Your task to perform on an android device: Search for the best rated kitchen reno kits on Lowes.com Image 0: 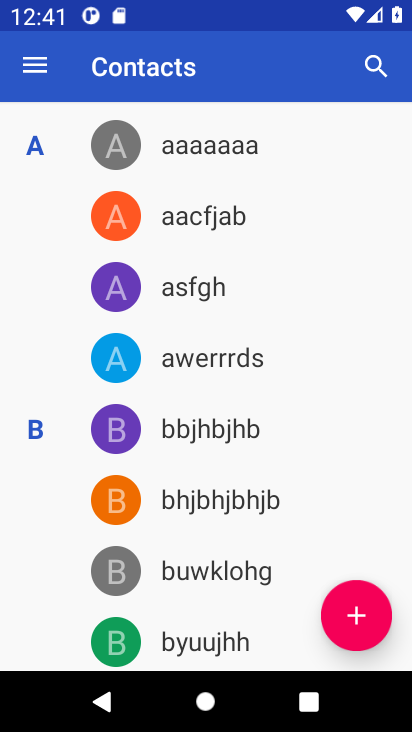
Step 0: press home button
Your task to perform on an android device: Search for the best rated kitchen reno kits on Lowes.com Image 1: 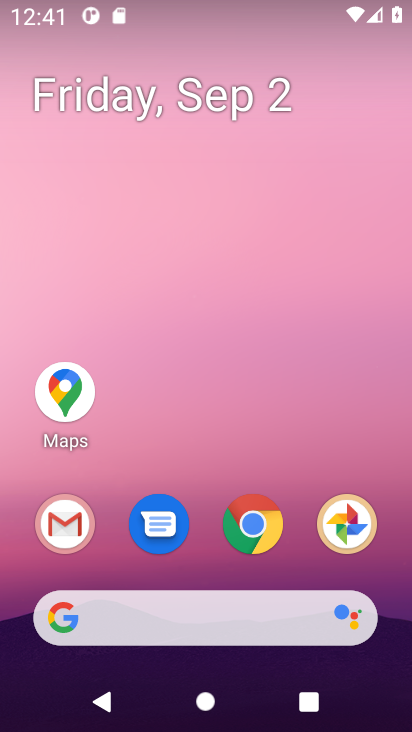
Step 1: click (293, 616)
Your task to perform on an android device: Search for the best rated kitchen reno kits on Lowes.com Image 2: 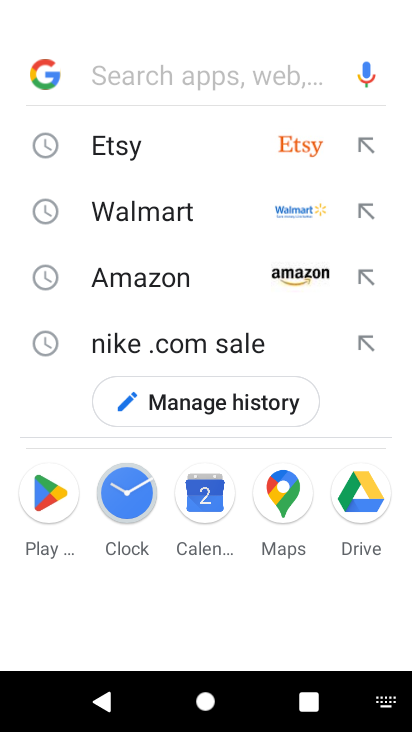
Step 2: press enter
Your task to perform on an android device: Search for the best rated kitchen reno kits on Lowes.com Image 3: 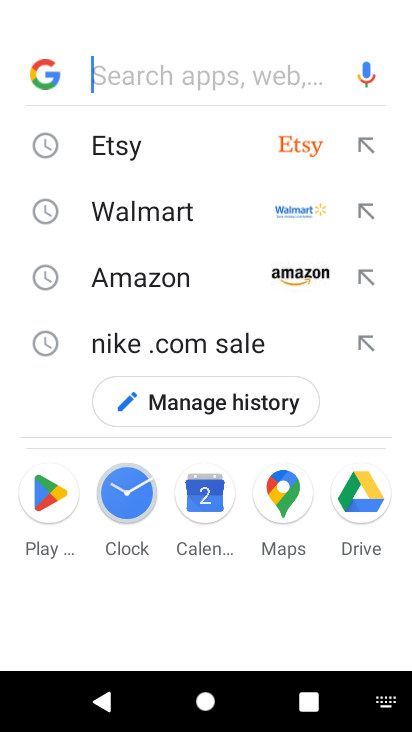
Step 3: type "lowes.com"
Your task to perform on an android device: Search for the best rated kitchen reno kits on Lowes.com Image 4: 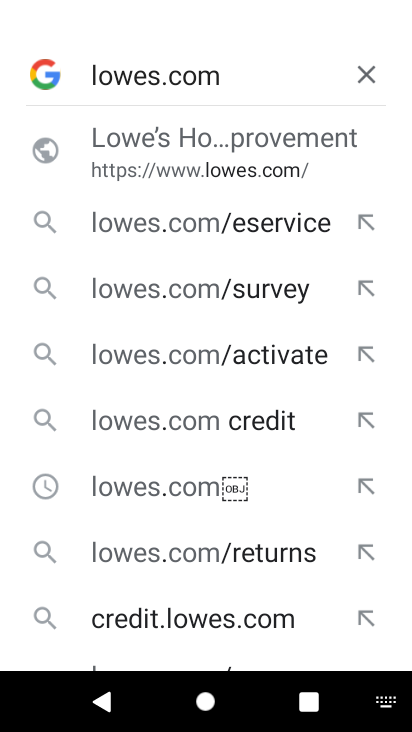
Step 4: click (244, 149)
Your task to perform on an android device: Search for the best rated kitchen reno kits on Lowes.com Image 5: 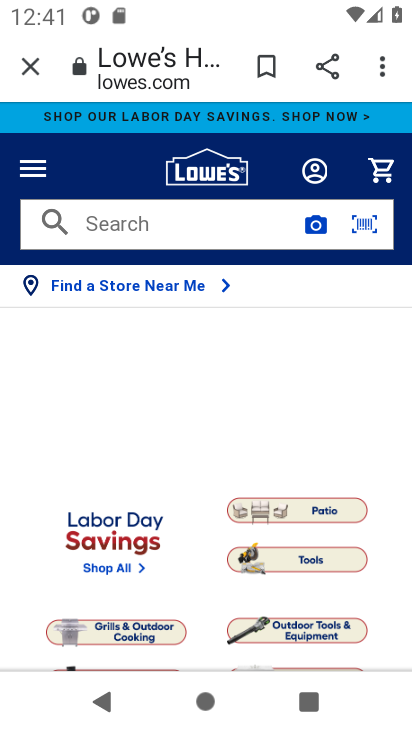
Step 5: click (126, 222)
Your task to perform on an android device: Search for the best rated kitchen reno kits on Lowes.com Image 6: 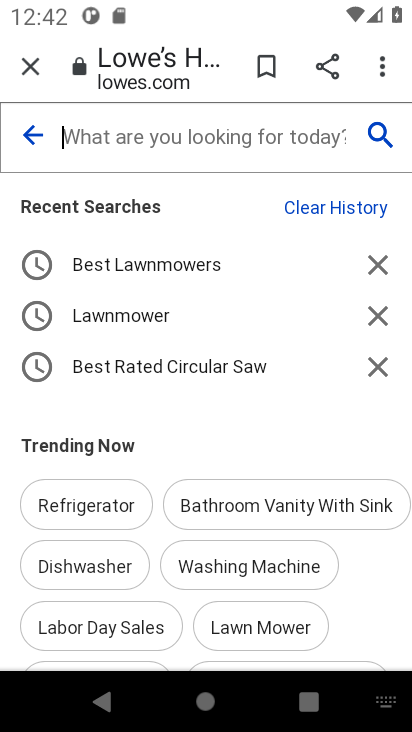
Step 6: press enter
Your task to perform on an android device: Search for the best rated kitchen reno kits on Lowes.com Image 7: 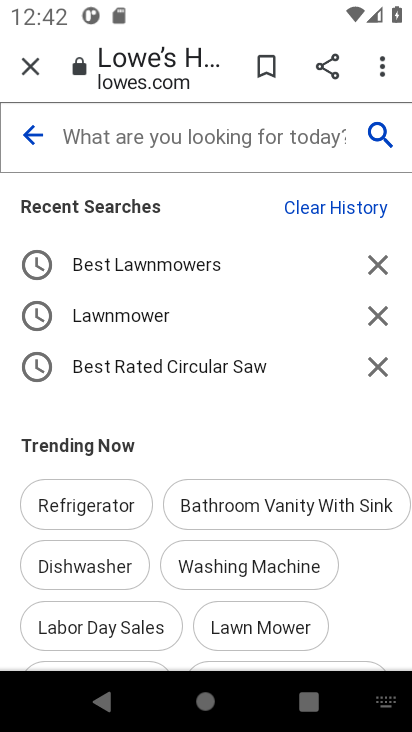
Step 7: type "best rated kitchen reno kits "
Your task to perform on an android device: Search for the best rated kitchen reno kits on Lowes.com Image 8: 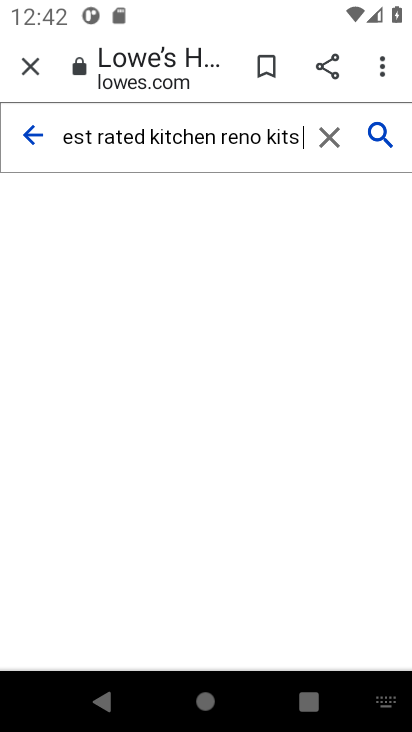
Step 8: click (375, 134)
Your task to perform on an android device: Search for the best rated kitchen reno kits on Lowes.com Image 9: 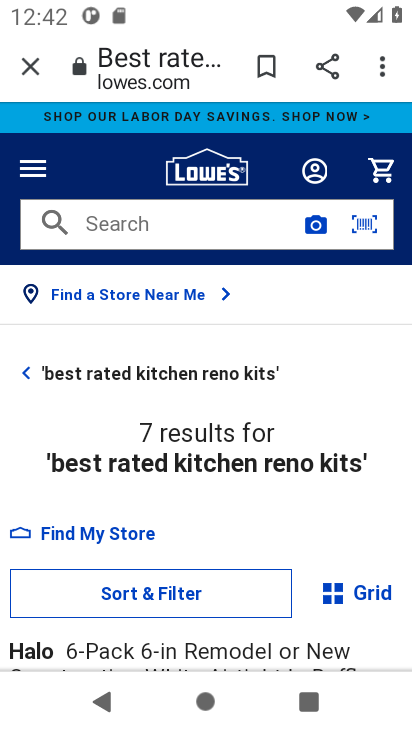
Step 9: task complete